Your task to perform on an android device: Do I have any events today? Image 0: 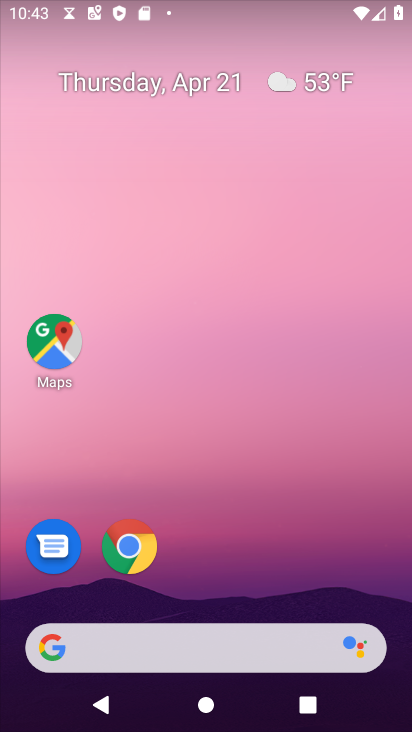
Step 0: drag from (281, 588) to (203, 94)
Your task to perform on an android device: Do I have any events today? Image 1: 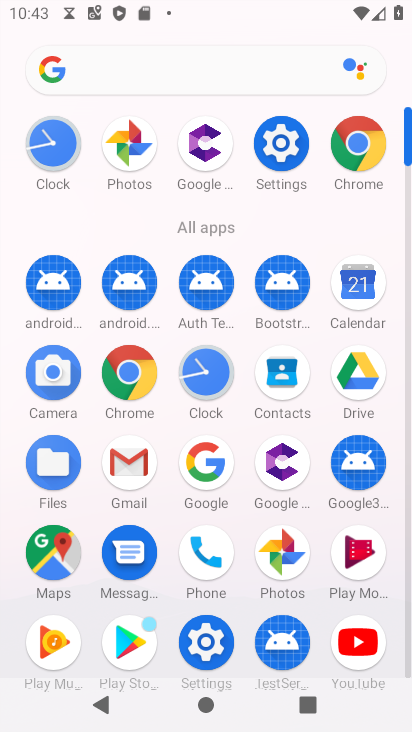
Step 1: drag from (254, 589) to (343, 266)
Your task to perform on an android device: Do I have any events today? Image 2: 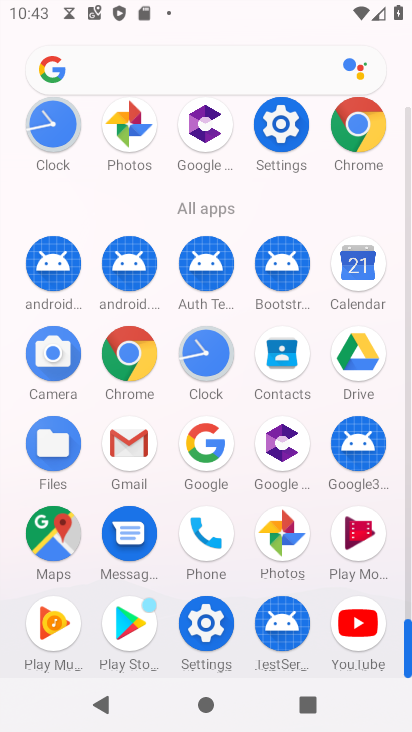
Step 2: drag from (260, 517) to (267, 228)
Your task to perform on an android device: Do I have any events today? Image 3: 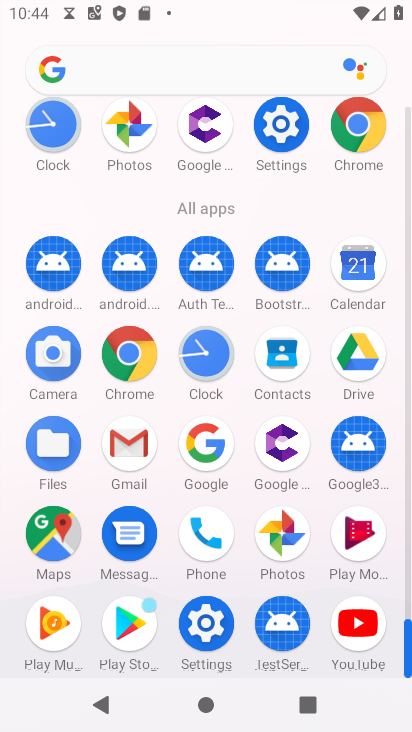
Step 3: drag from (226, 595) to (290, 280)
Your task to perform on an android device: Do I have any events today? Image 4: 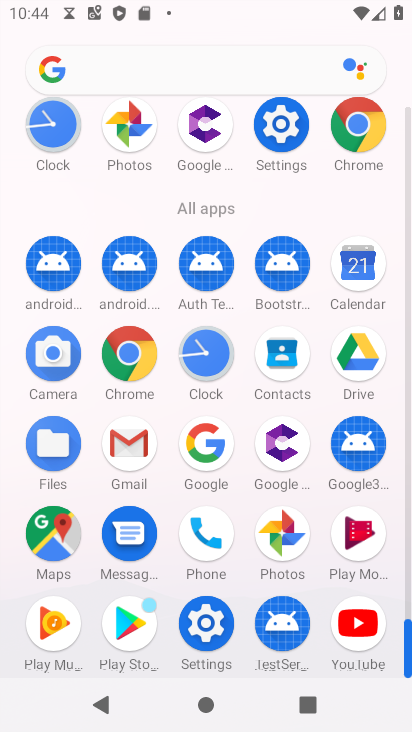
Step 4: click (374, 279)
Your task to perform on an android device: Do I have any events today? Image 5: 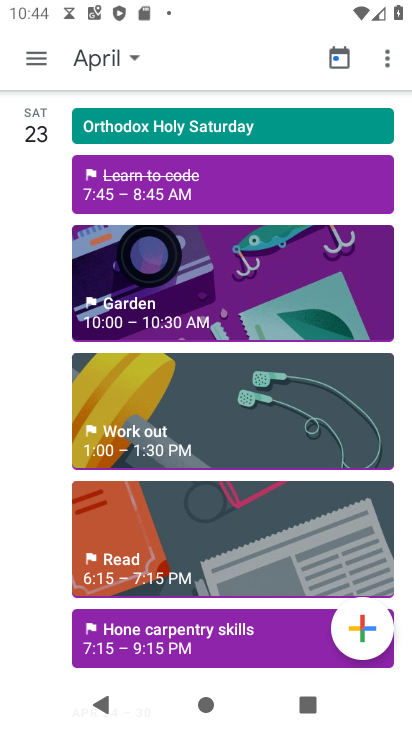
Step 5: click (86, 69)
Your task to perform on an android device: Do I have any events today? Image 6: 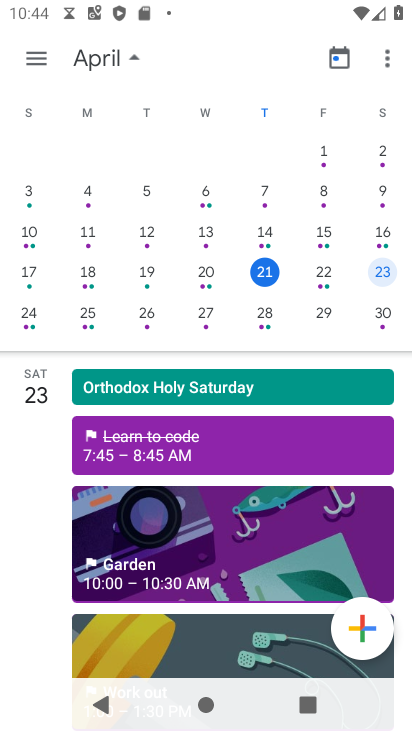
Step 6: click (328, 277)
Your task to perform on an android device: Do I have any events today? Image 7: 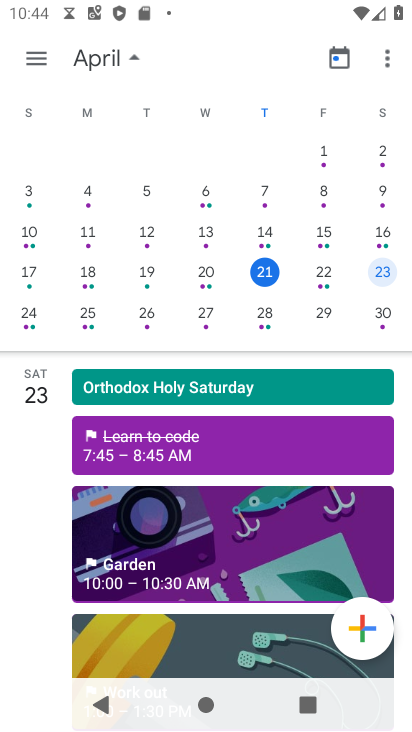
Step 7: click (328, 274)
Your task to perform on an android device: Do I have any events today? Image 8: 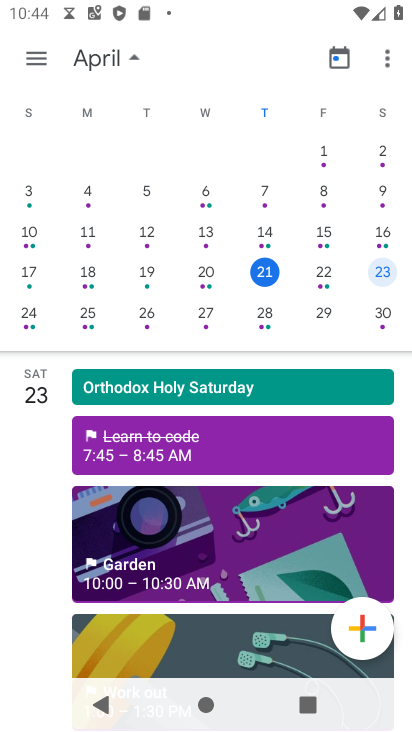
Step 8: click (328, 275)
Your task to perform on an android device: Do I have any events today? Image 9: 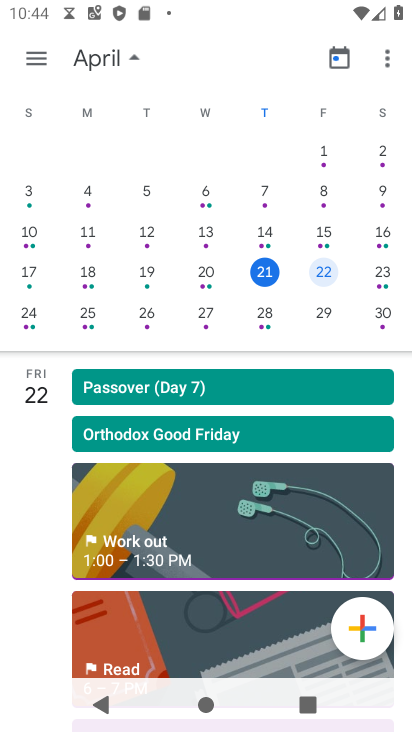
Step 9: task complete